Your task to perform on an android device: open chrome and create a bookmark for the current page Image 0: 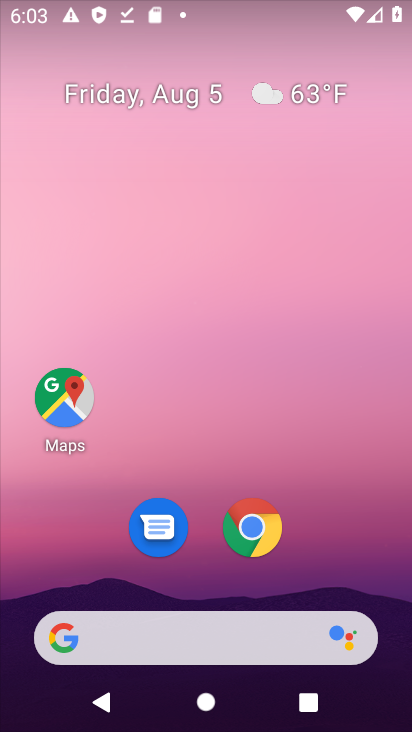
Step 0: drag from (186, 597) to (218, 84)
Your task to perform on an android device: open chrome and create a bookmark for the current page Image 1: 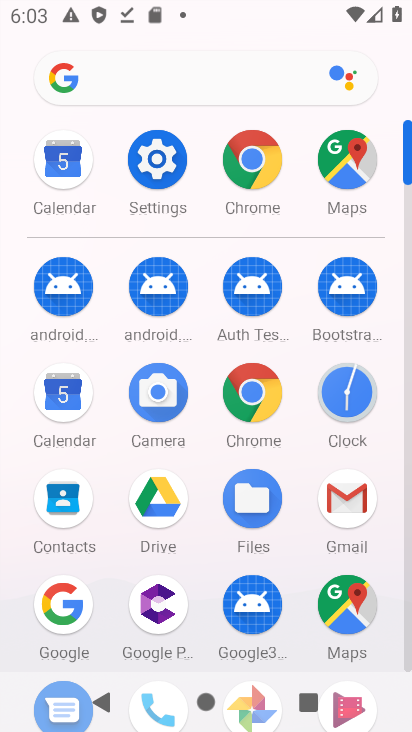
Step 1: click (251, 395)
Your task to perform on an android device: open chrome and create a bookmark for the current page Image 2: 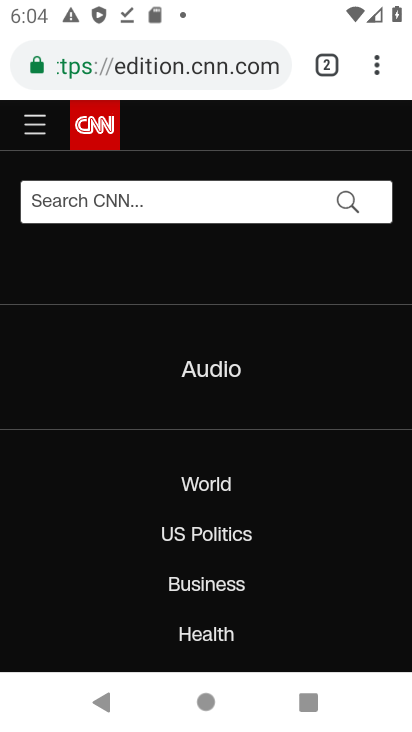
Step 2: drag from (376, 79) to (178, 254)
Your task to perform on an android device: open chrome and create a bookmark for the current page Image 3: 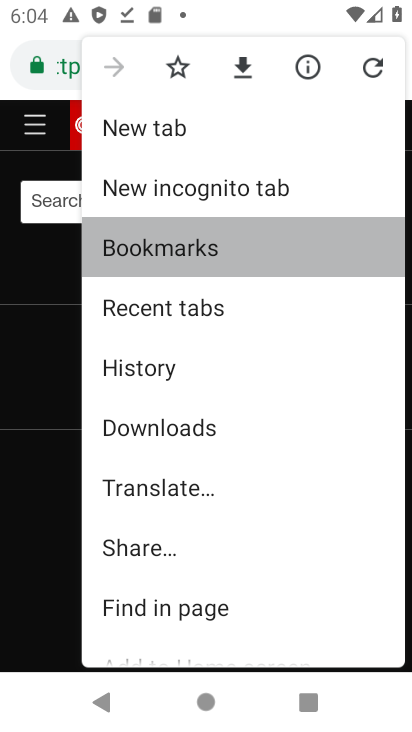
Step 3: click (178, 254)
Your task to perform on an android device: open chrome and create a bookmark for the current page Image 4: 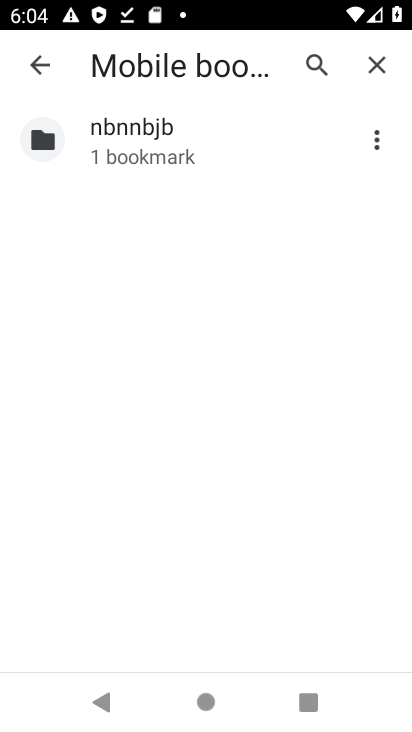
Step 4: drag from (186, 616) to (210, 391)
Your task to perform on an android device: open chrome and create a bookmark for the current page Image 5: 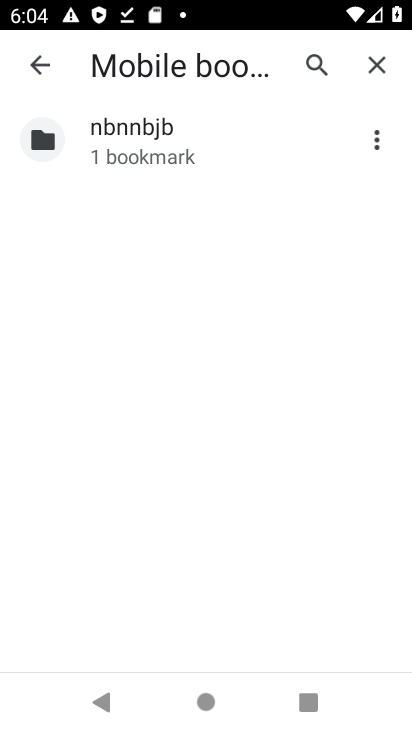
Step 5: drag from (377, 135) to (243, 560)
Your task to perform on an android device: open chrome and create a bookmark for the current page Image 6: 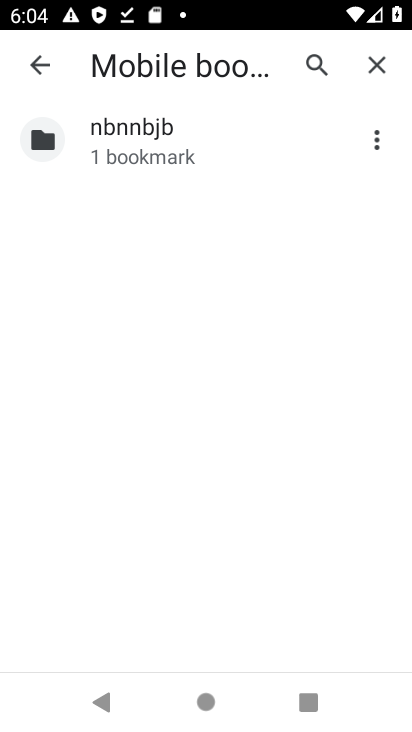
Step 6: drag from (226, 310) to (210, 422)
Your task to perform on an android device: open chrome and create a bookmark for the current page Image 7: 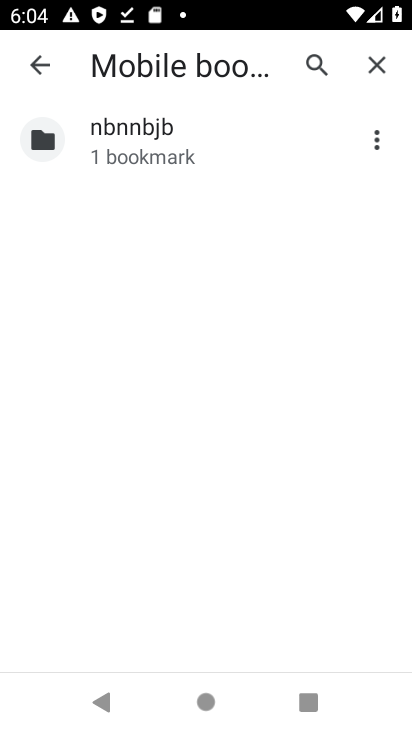
Step 7: click (384, 60)
Your task to perform on an android device: open chrome and create a bookmark for the current page Image 8: 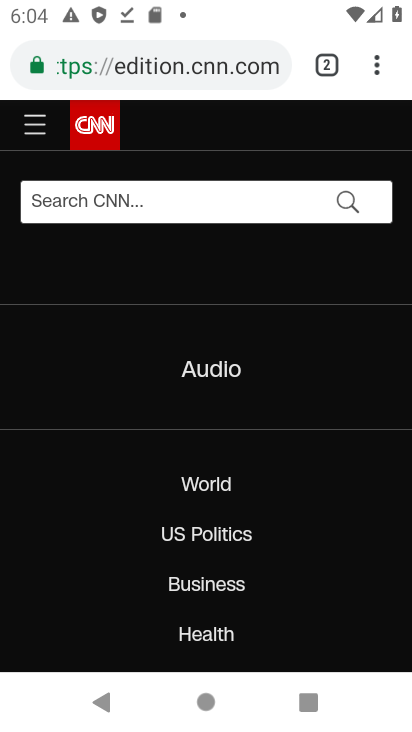
Step 8: click (378, 66)
Your task to perform on an android device: open chrome and create a bookmark for the current page Image 9: 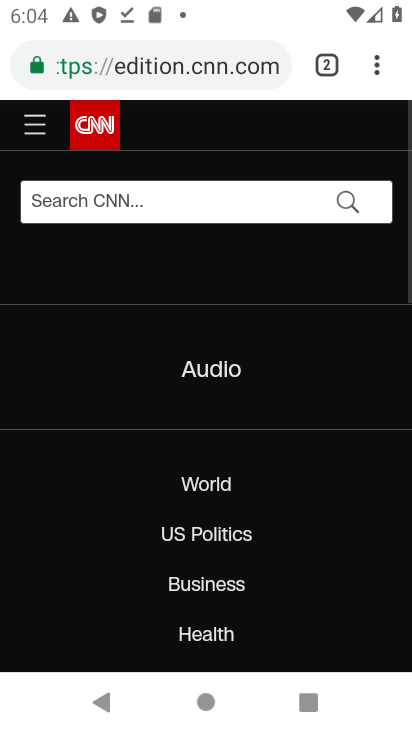
Step 9: drag from (380, 59) to (173, 69)
Your task to perform on an android device: open chrome and create a bookmark for the current page Image 10: 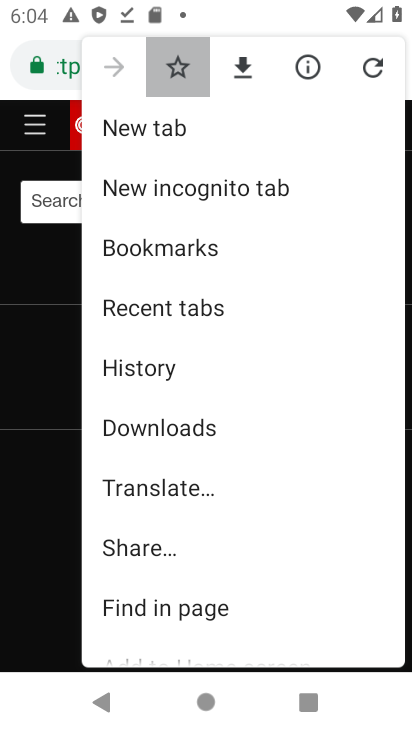
Step 10: click (171, 67)
Your task to perform on an android device: open chrome and create a bookmark for the current page Image 11: 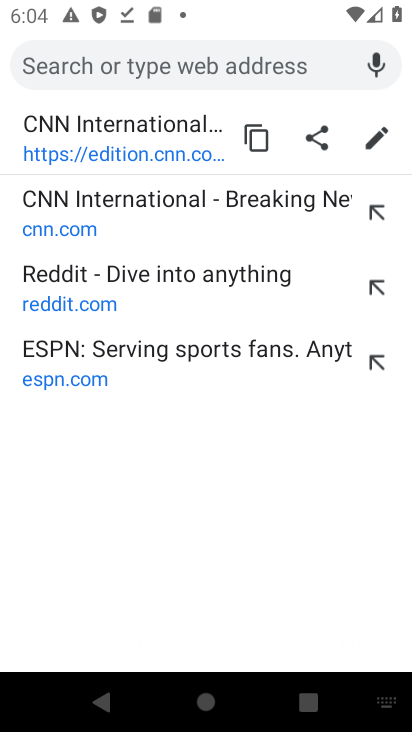
Step 11: task complete